Your task to perform on an android device: search for starred emails in the gmail app Image 0: 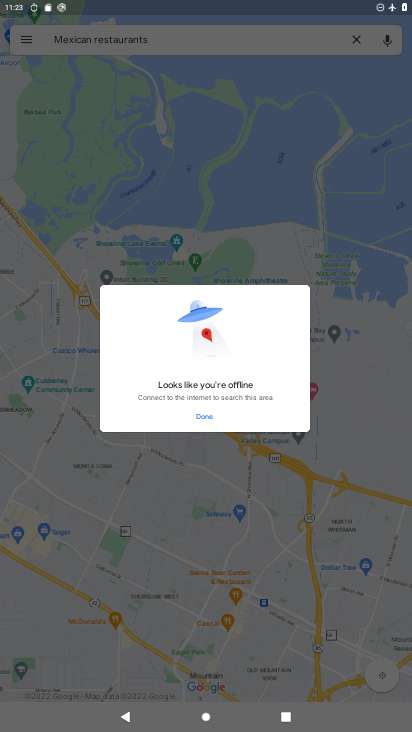
Step 0: press home button
Your task to perform on an android device: search for starred emails in the gmail app Image 1: 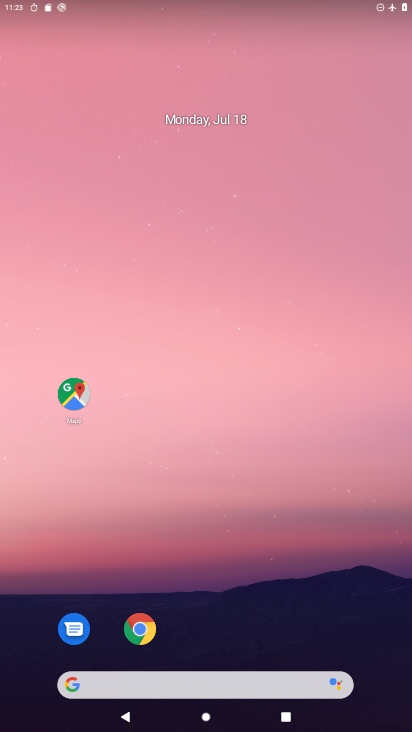
Step 1: drag from (307, 603) to (310, 159)
Your task to perform on an android device: search for starred emails in the gmail app Image 2: 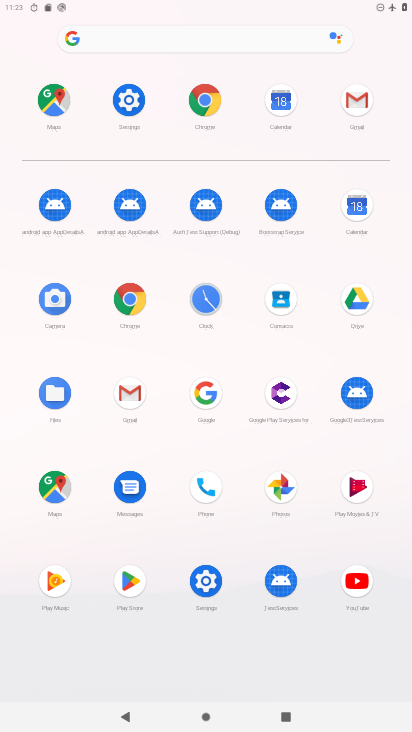
Step 2: click (350, 107)
Your task to perform on an android device: search for starred emails in the gmail app Image 3: 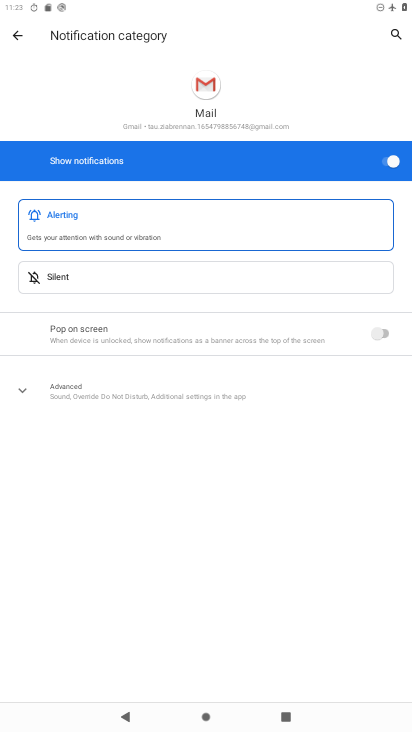
Step 3: click (12, 32)
Your task to perform on an android device: search for starred emails in the gmail app Image 4: 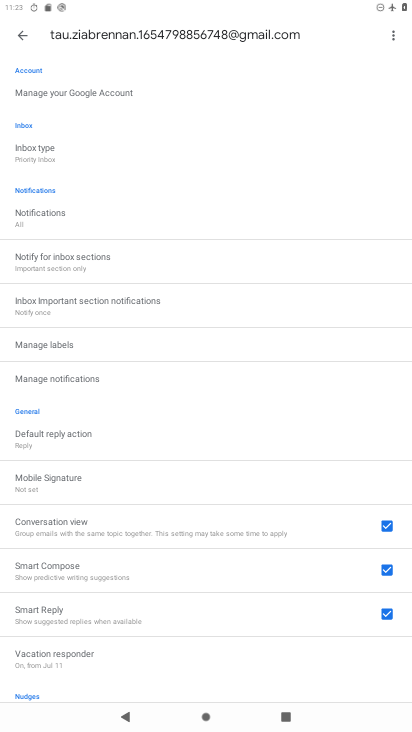
Step 4: click (22, 35)
Your task to perform on an android device: search for starred emails in the gmail app Image 5: 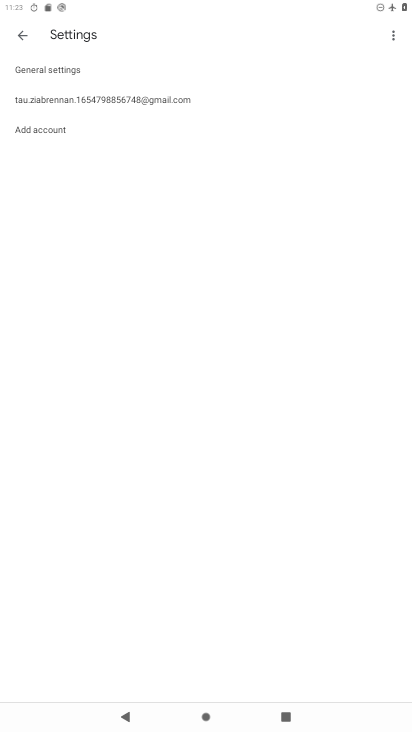
Step 5: click (16, 40)
Your task to perform on an android device: search for starred emails in the gmail app Image 6: 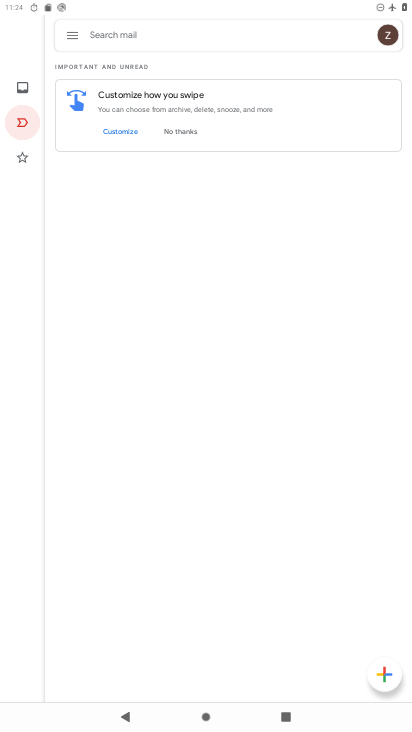
Step 6: click (73, 40)
Your task to perform on an android device: search for starred emails in the gmail app Image 7: 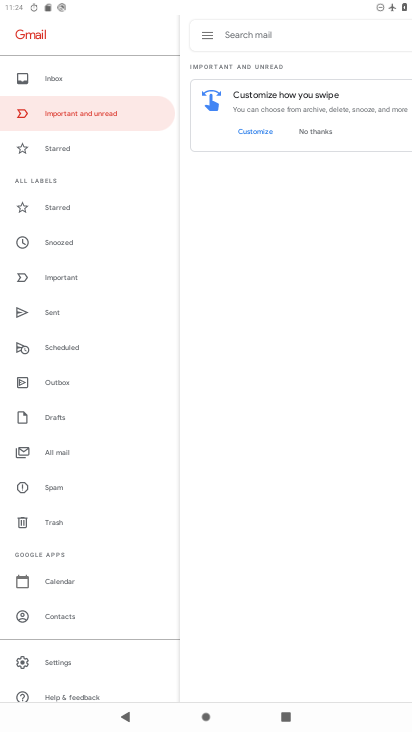
Step 7: click (69, 211)
Your task to perform on an android device: search for starred emails in the gmail app Image 8: 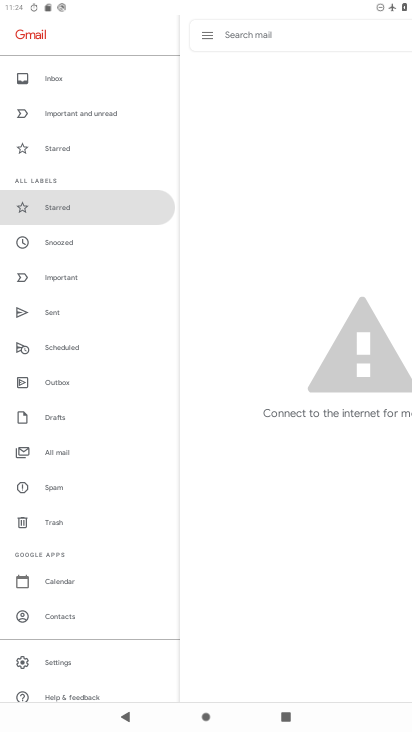
Step 8: task complete